Your task to perform on an android device: turn off data saver in the chrome app Image 0: 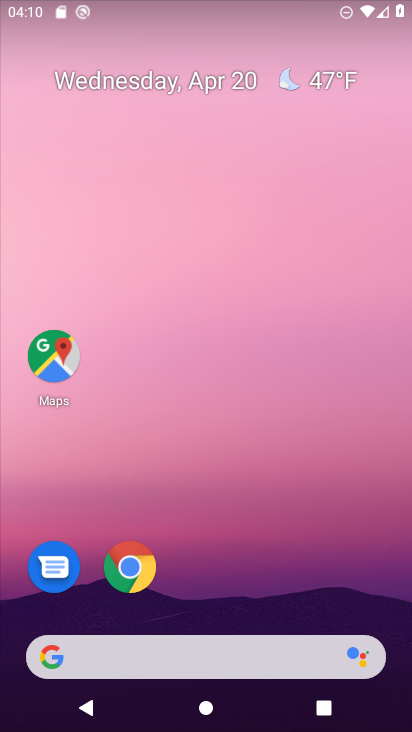
Step 0: click (137, 574)
Your task to perform on an android device: turn off data saver in the chrome app Image 1: 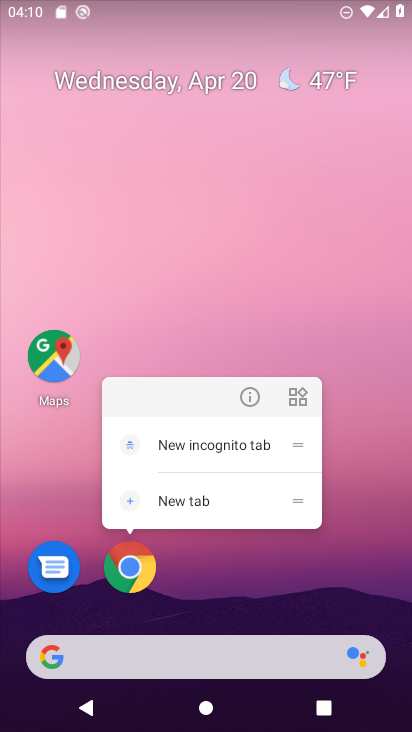
Step 1: click (174, 495)
Your task to perform on an android device: turn off data saver in the chrome app Image 2: 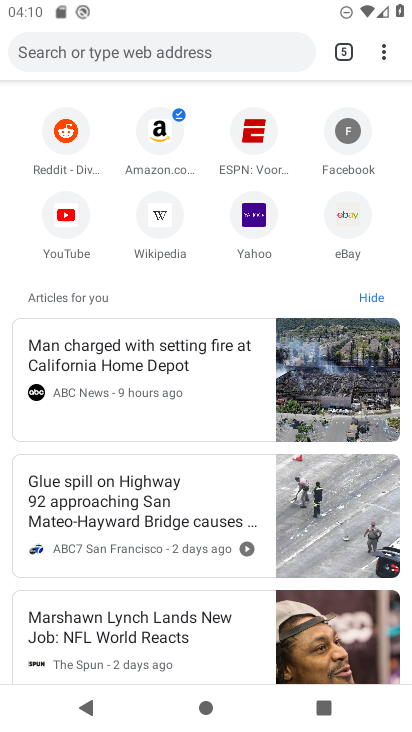
Step 2: click (378, 47)
Your task to perform on an android device: turn off data saver in the chrome app Image 3: 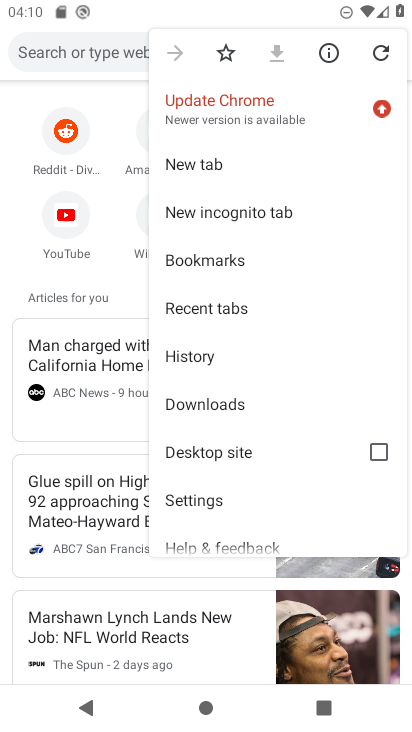
Step 3: click (228, 507)
Your task to perform on an android device: turn off data saver in the chrome app Image 4: 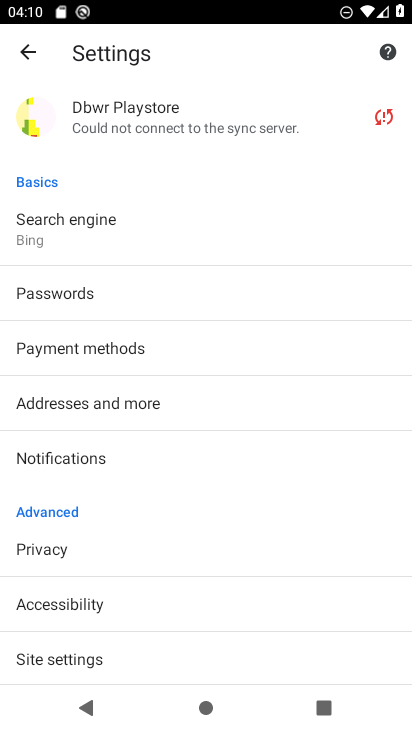
Step 4: drag from (162, 663) to (125, 240)
Your task to perform on an android device: turn off data saver in the chrome app Image 5: 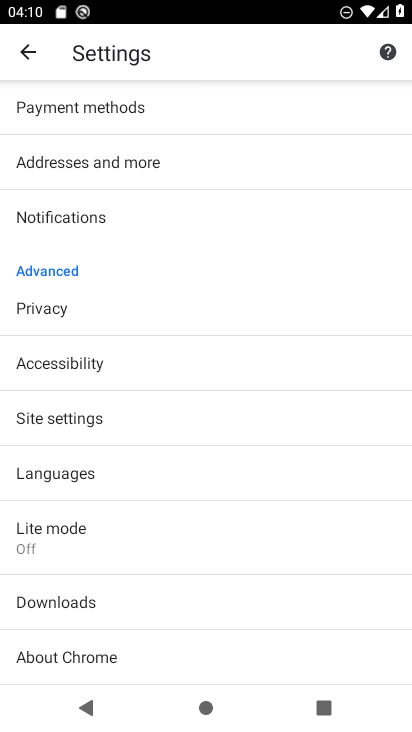
Step 5: click (150, 555)
Your task to perform on an android device: turn off data saver in the chrome app Image 6: 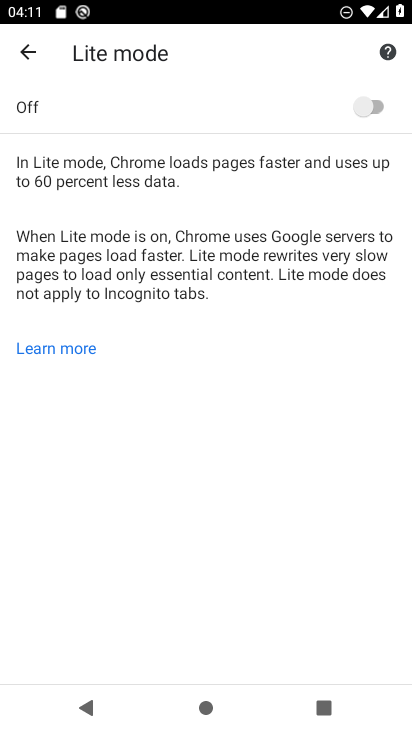
Step 6: task complete